Your task to perform on an android device: open a new tab in the chrome app Image 0: 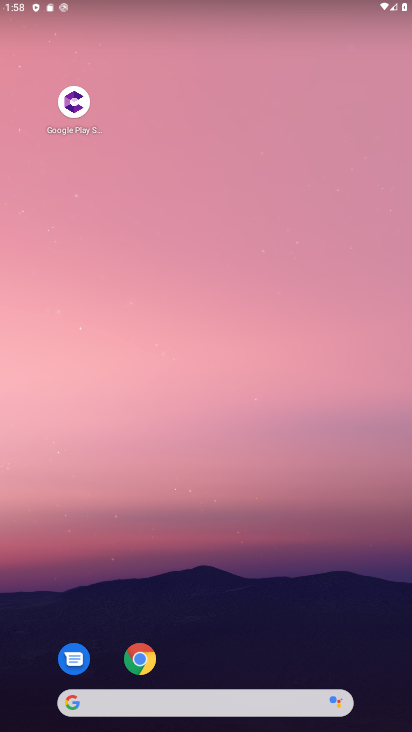
Step 0: press home button
Your task to perform on an android device: open a new tab in the chrome app Image 1: 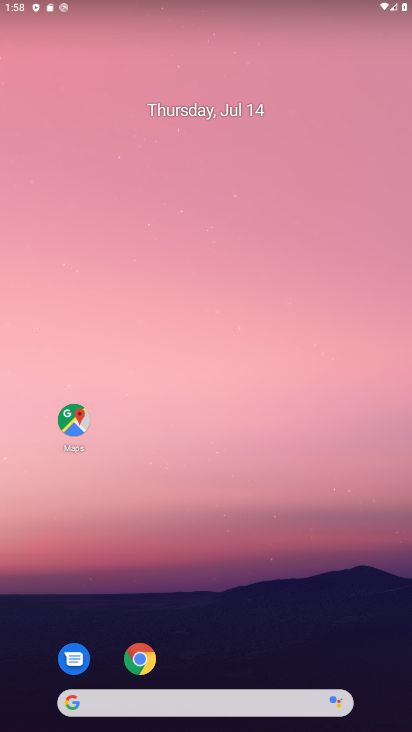
Step 1: click (139, 662)
Your task to perform on an android device: open a new tab in the chrome app Image 2: 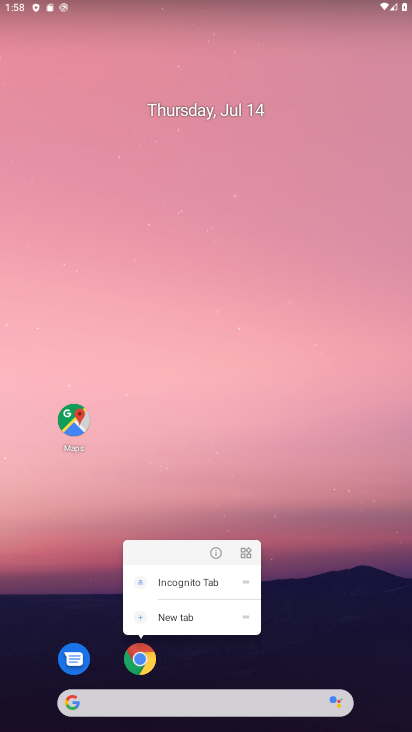
Step 2: click (140, 665)
Your task to perform on an android device: open a new tab in the chrome app Image 3: 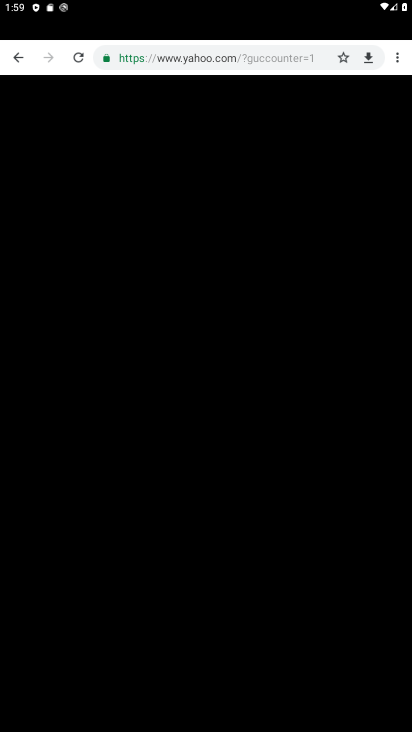
Step 3: click (400, 59)
Your task to perform on an android device: open a new tab in the chrome app Image 4: 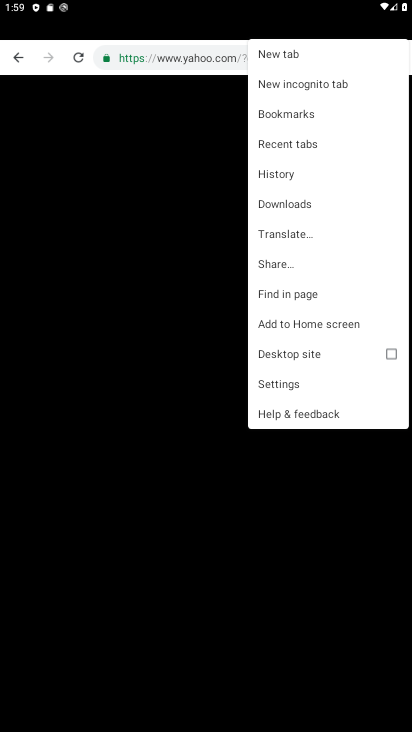
Step 4: click (289, 49)
Your task to perform on an android device: open a new tab in the chrome app Image 5: 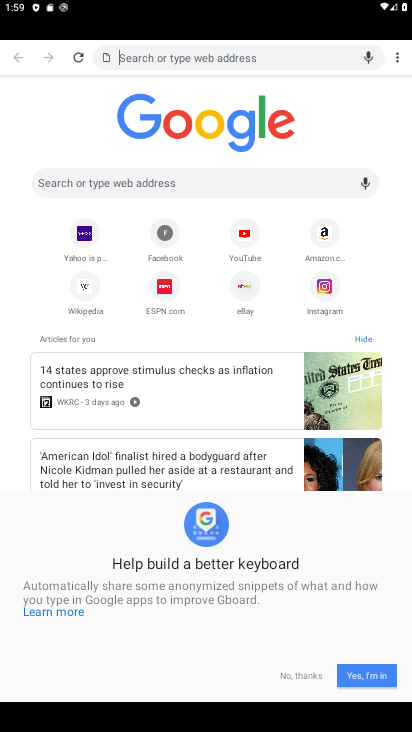
Step 5: task complete